Your task to perform on an android device: Turn on the flashlight Image 0: 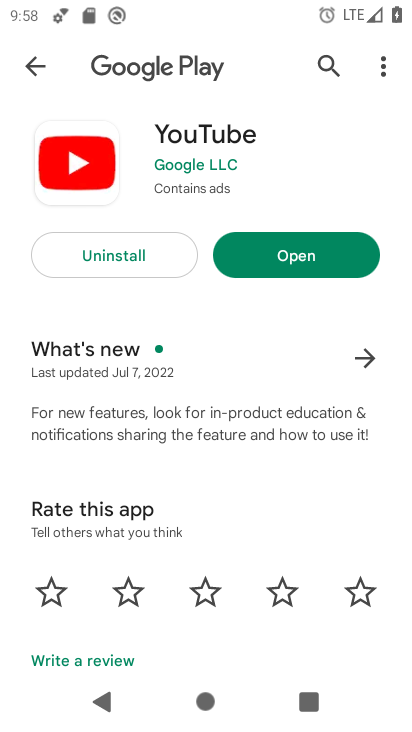
Step 0: press home button
Your task to perform on an android device: Turn on the flashlight Image 1: 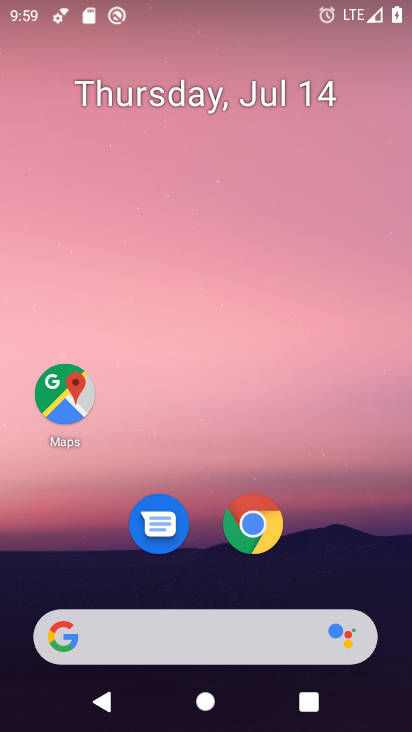
Step 1: drag from (325, 534) to (318, 16)
Your task to perform on an android device: Turn on the flashlight Image 2: 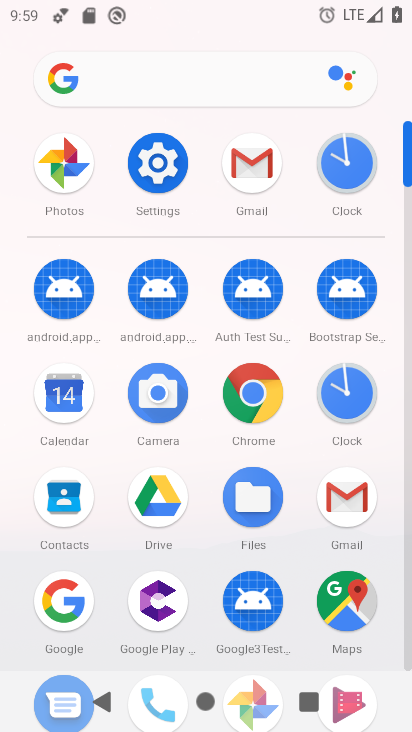
Step 2: click (175, 166)
Your task to perform on an android device: Turn on the flashlight Image 3: 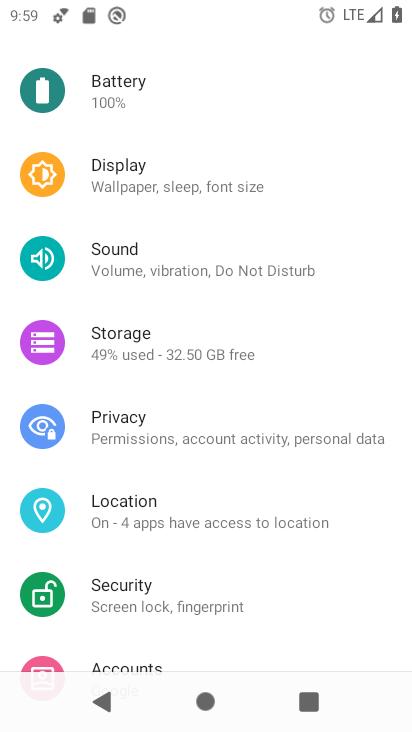
Step 3: drag from (211, 168) to (216, 515)
Your task to perform on an android device: Turn on the flashlight Image 4: 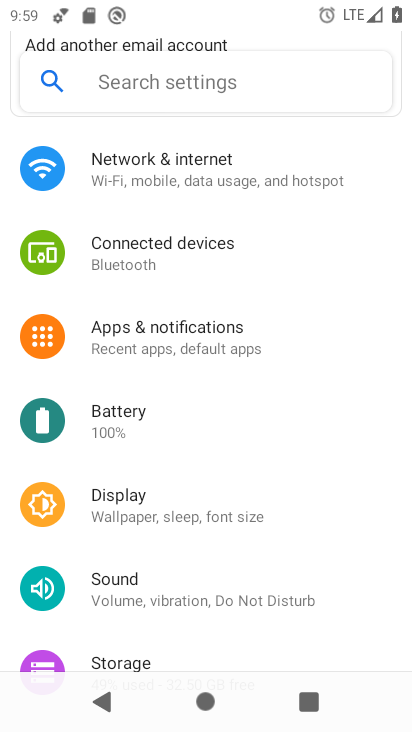
Step 4: drag from (257, 217) to (264, 540)
Your task to perform on an android device: Turn on the flashlight Image 5: 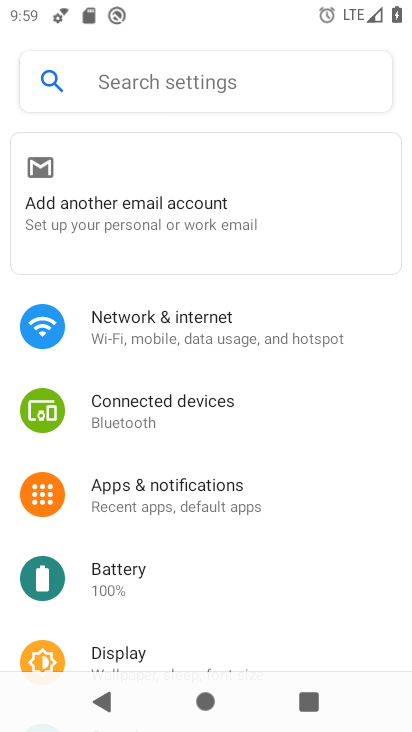
Step 5: click (258, 68)
Your task to perform on an android device: Turn on the flashlight Image 6: 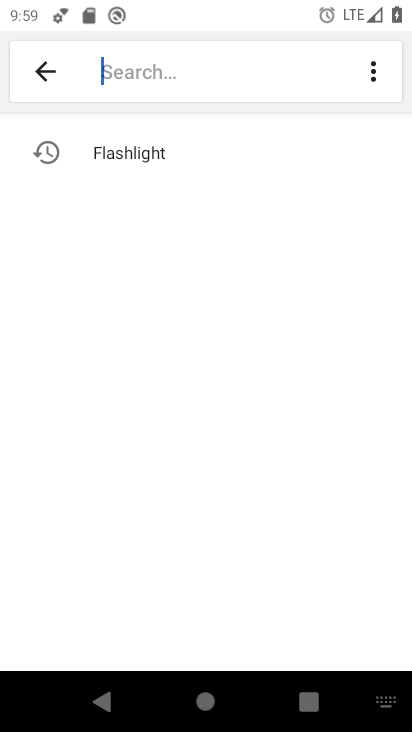
Step 6: click (147, 150)
Your task to perform on an android device: Turn on the flashlight Image 7: 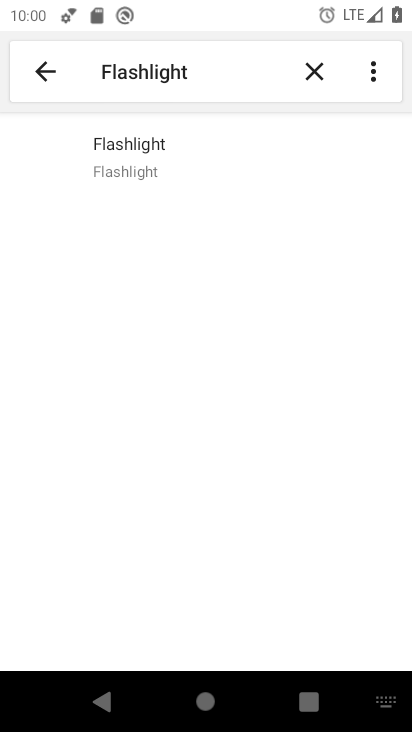
Step 7: click (144, 141)
Your task to perform on an android device: Turn on the flashlight Image 8: 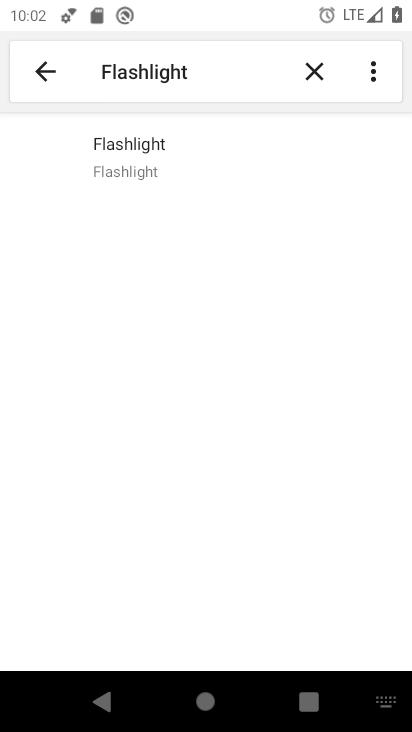
Step 8: click (137, 156)
Your task to perform on an android device: Turn on the flashlight Image 9: 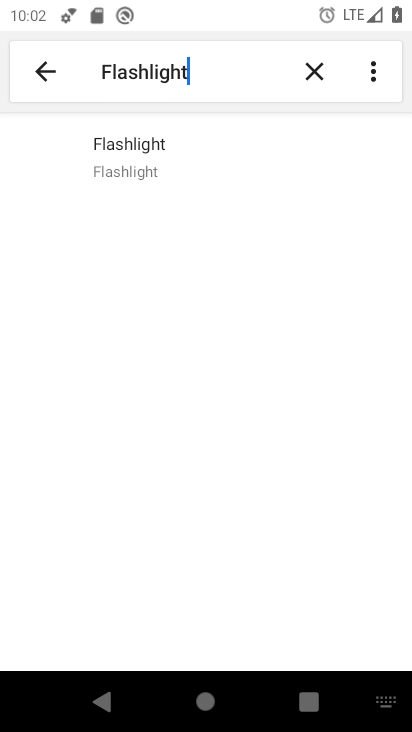
Step 9: task complete